Your task to perform on an android device: change notifications settings Image 0: 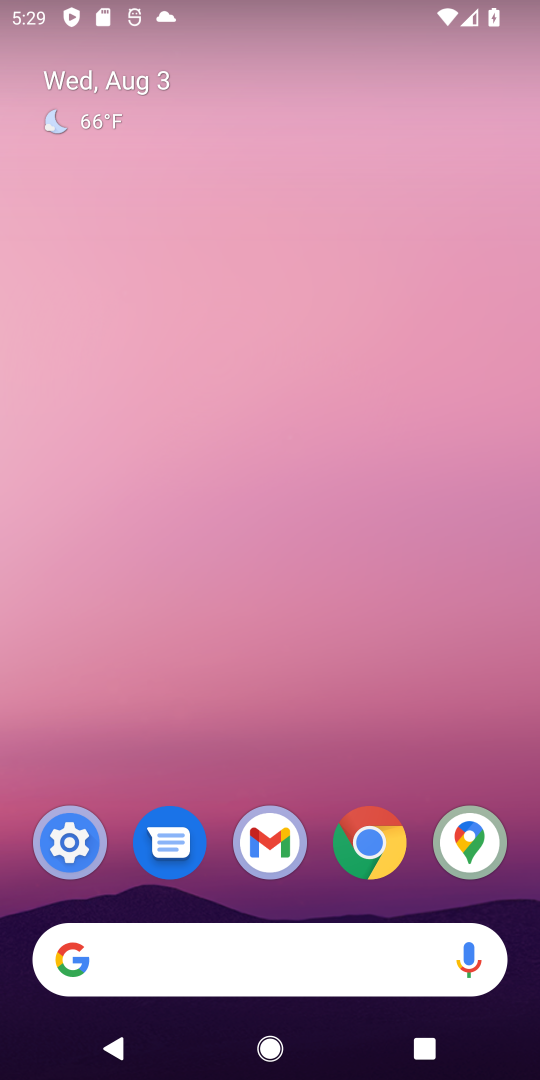
Step 0: click (76, 844)
Your task to perform on an android device: change notifications settings Image 1: 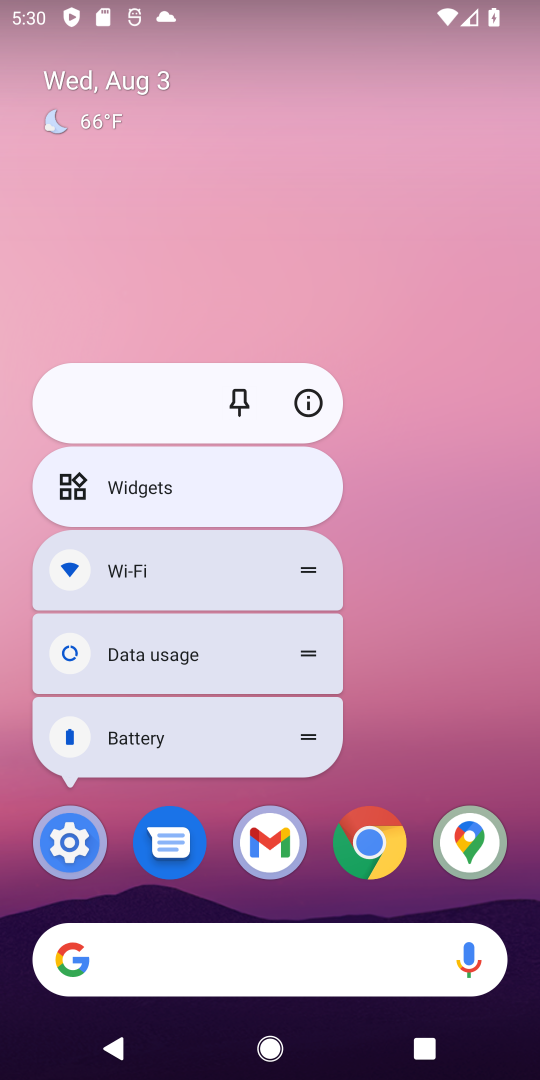
Step 1: click (50, 855)
Your task to perform on an android device: change notifications settings Image 2: 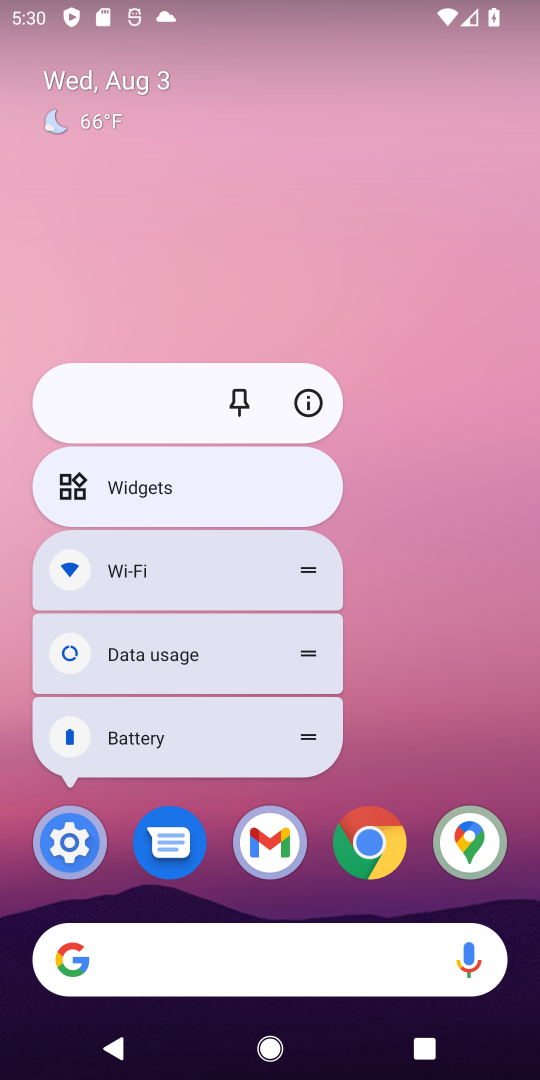
Step 2: click (50, 855)
Your task to perform on an android device: change notifications settings Image 3: 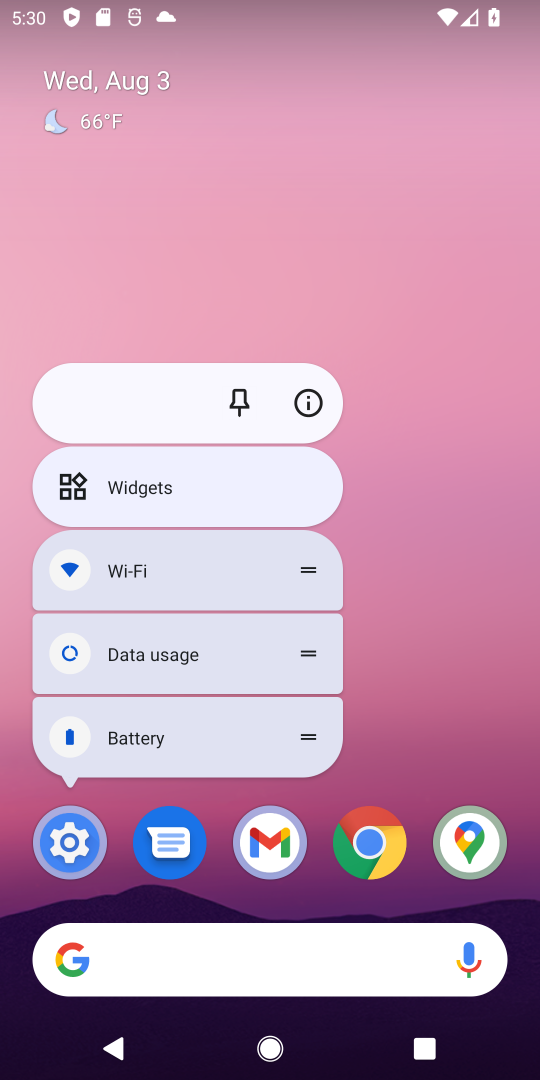
Step 3: click (74, 874)
Your task to perform on an android device: change notifications settings Image 4: 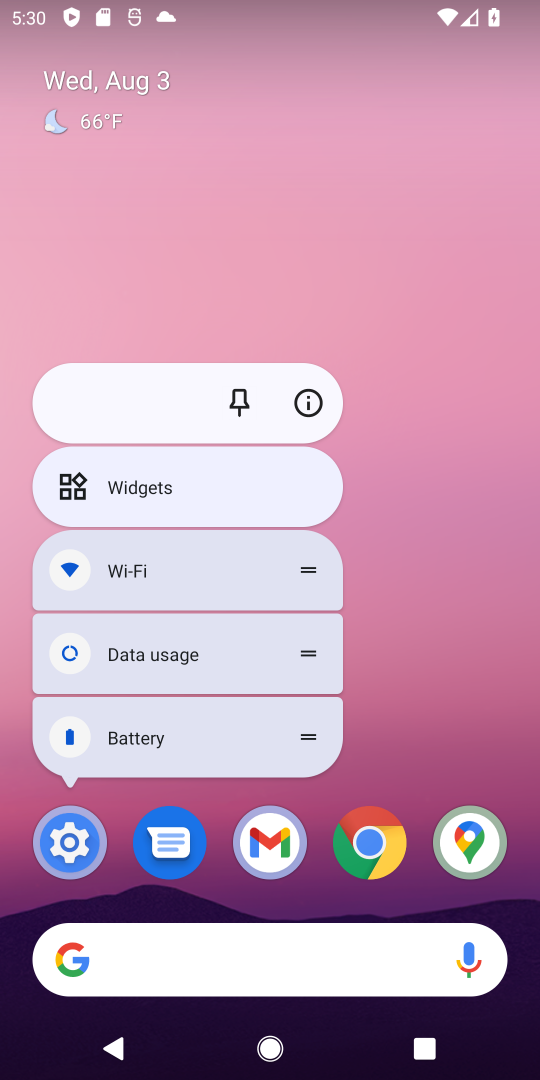
Step 4: click (71, 844)
Your task to perform on an android device: change notifications settings Image 5: 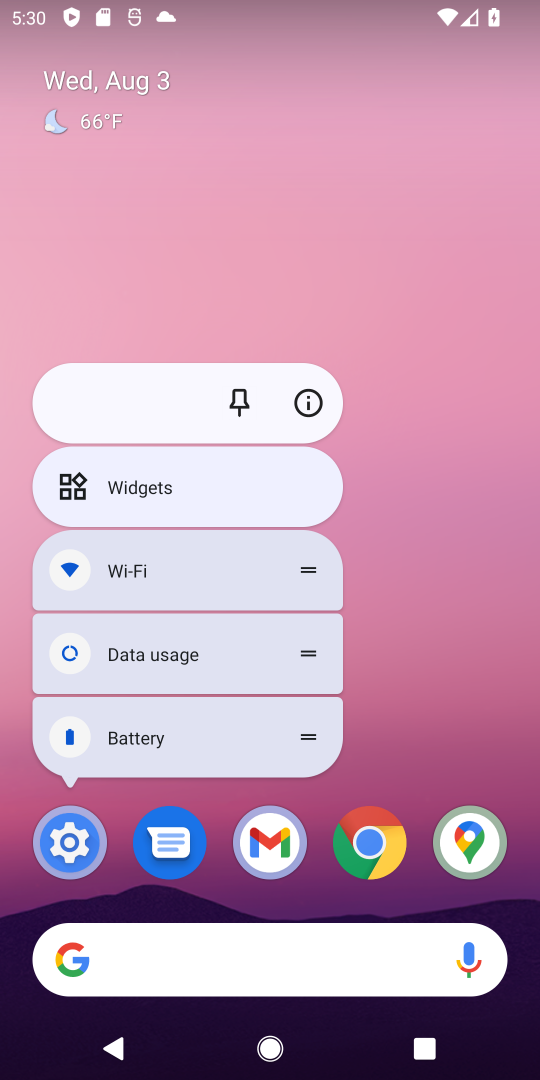
Step 5: click (71, 844)
Your task to perform on an android device: change notifications settings Image 6: 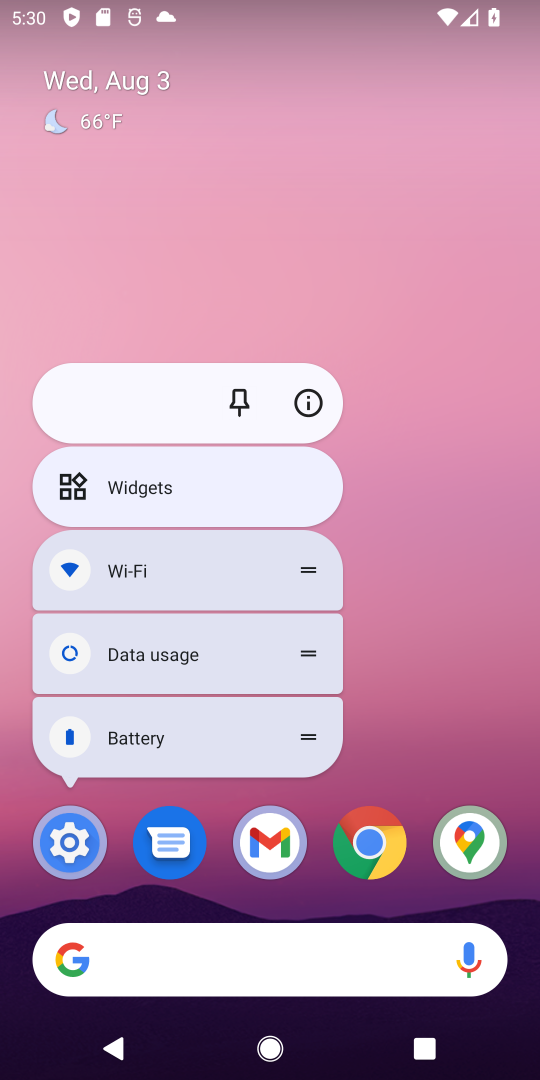
Step 6: click (53, 846)
Your task to perform on an android device: change notifications settings Image 7: 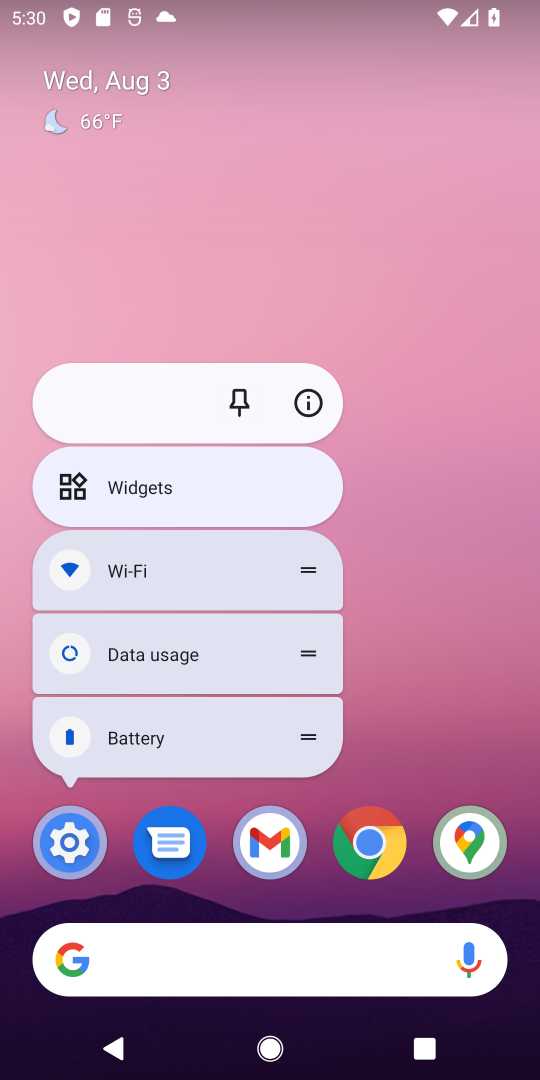
Step 7: click (53, 846)
Your task to perform on an android device: change notifications settings Image 8: 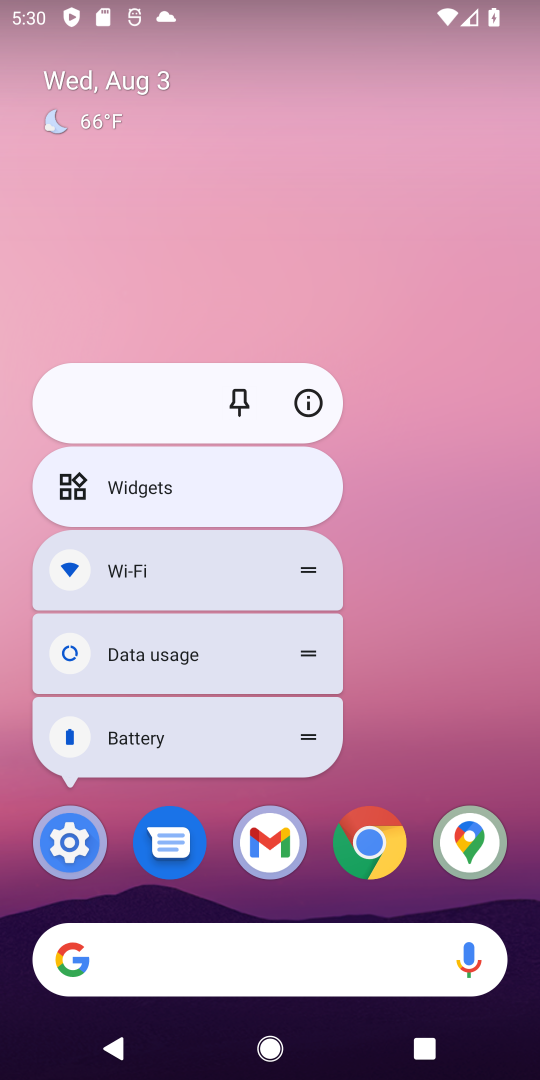
Step 8: click (53, 846)
Your task to perform on an android device: change notifications settings Image 9: 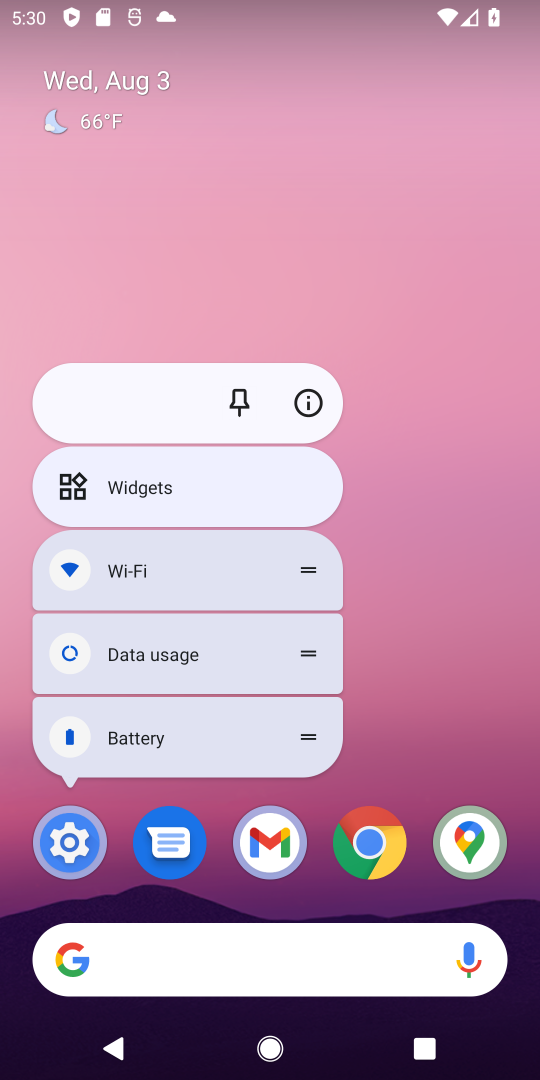
Step 9: click (73, 850)
Your task to perform on an android device: change notifications settings Image 10: 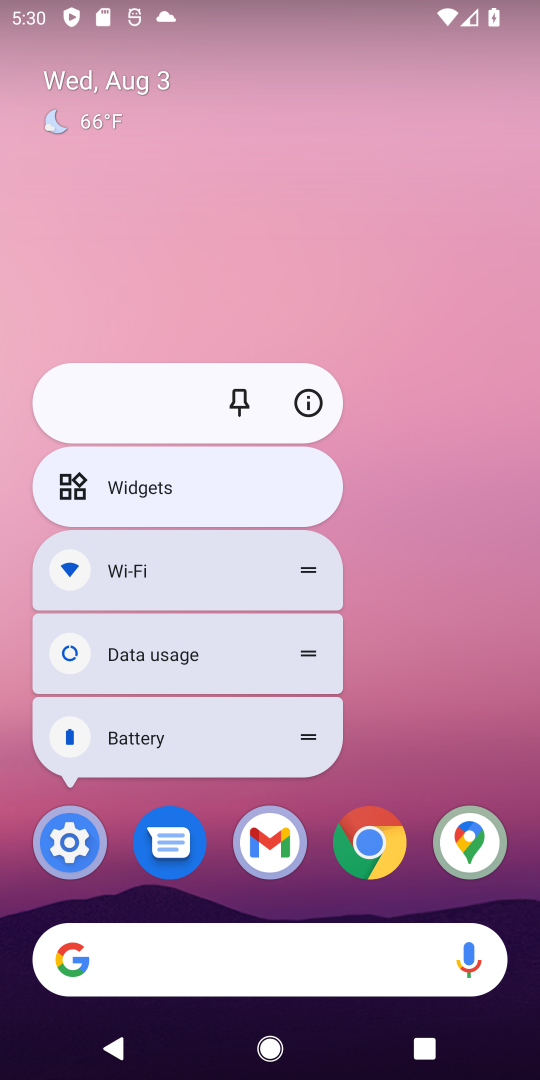
Step 10: click (73, 850)
Your task to perform on an android device: change notifications settings Image 11: 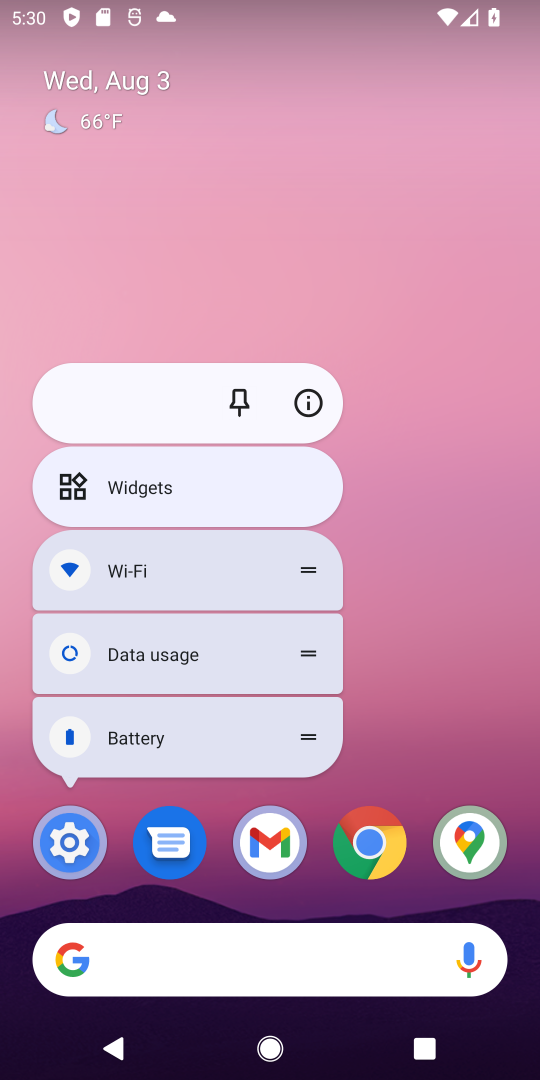
Step 11: click (73, 850)
Your task to perform on an android device: change notifications settings Image 12: 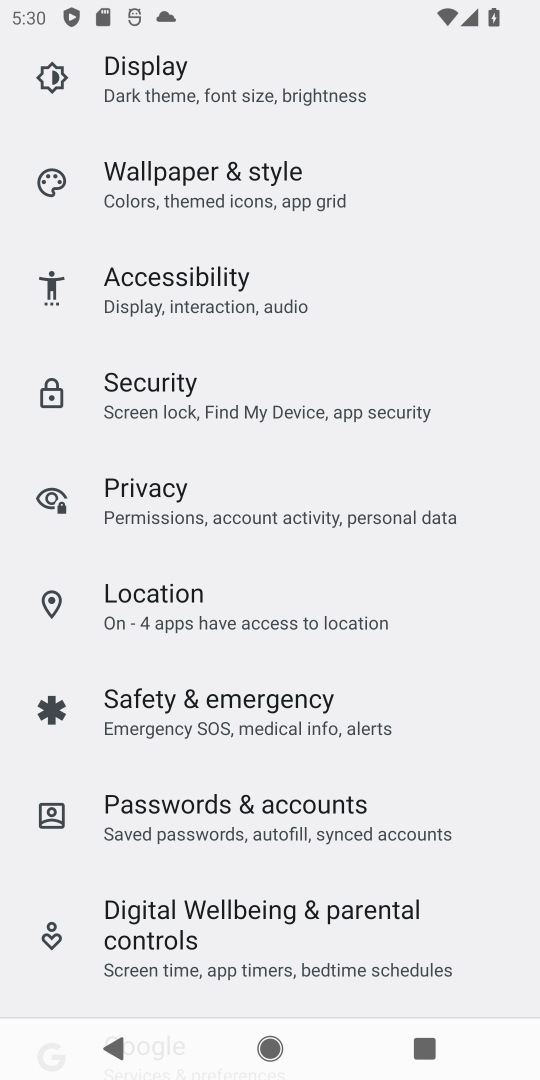
Step 12: drag from (296, 772) to (341, 107)
Your task to perform on an android device: change notifications settings Image 13: 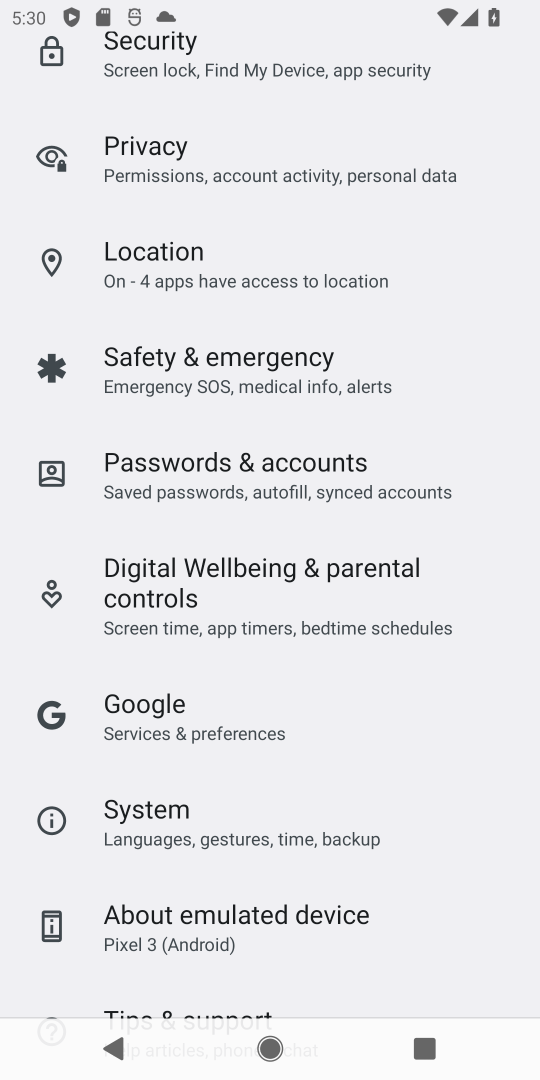
Step 13: drag from (266, 851) to (335, 38)
Your task to perform on an android device: change notifications settings Image 14: 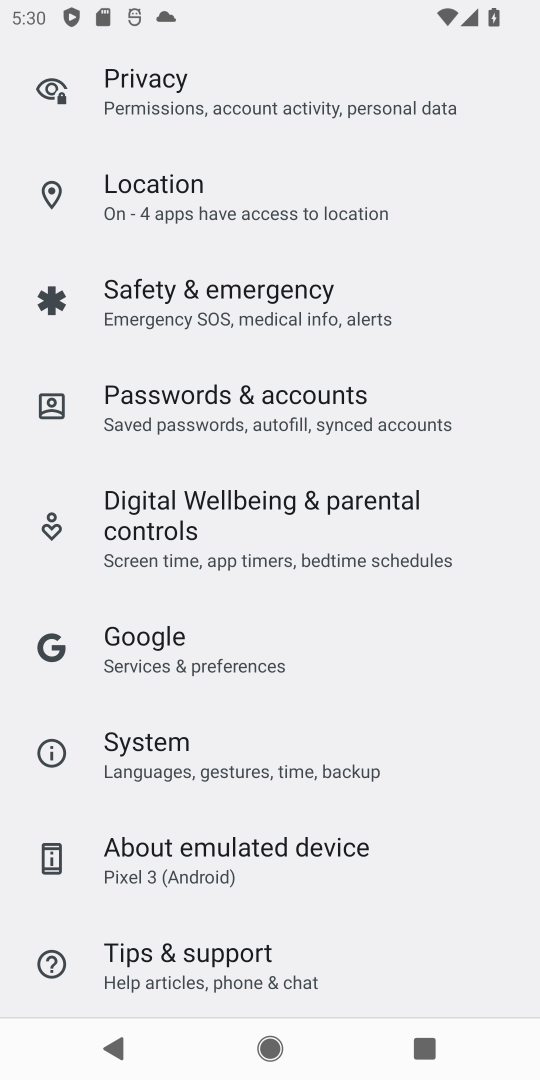
Step 14: click (294, 347)
Your task to perform on an android device: change notifications settings Image 15: 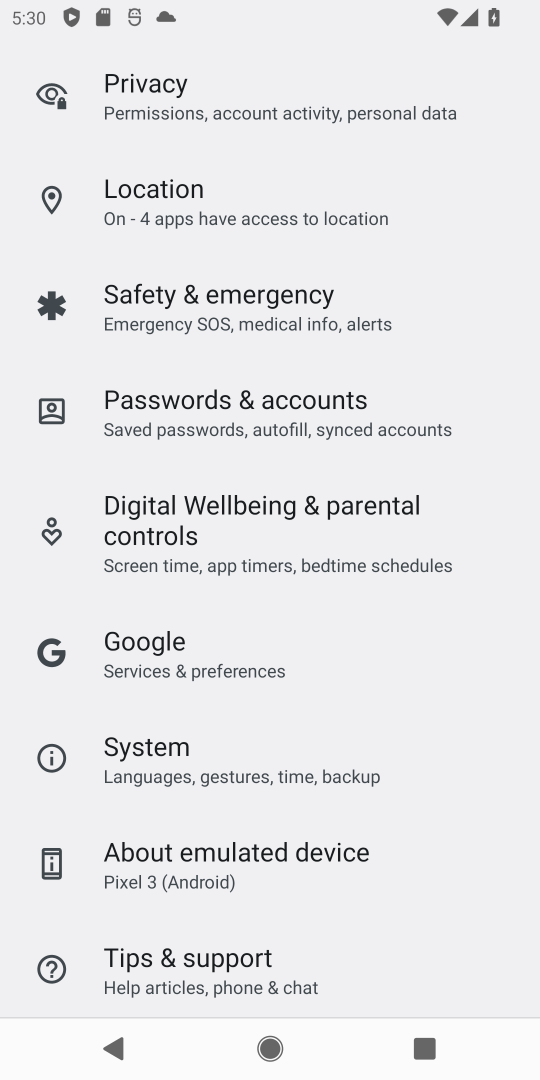
Step 15: drag from (329, 717) to (312, 1024)
Your task to perform on an android device: change notifications settings Image 16: 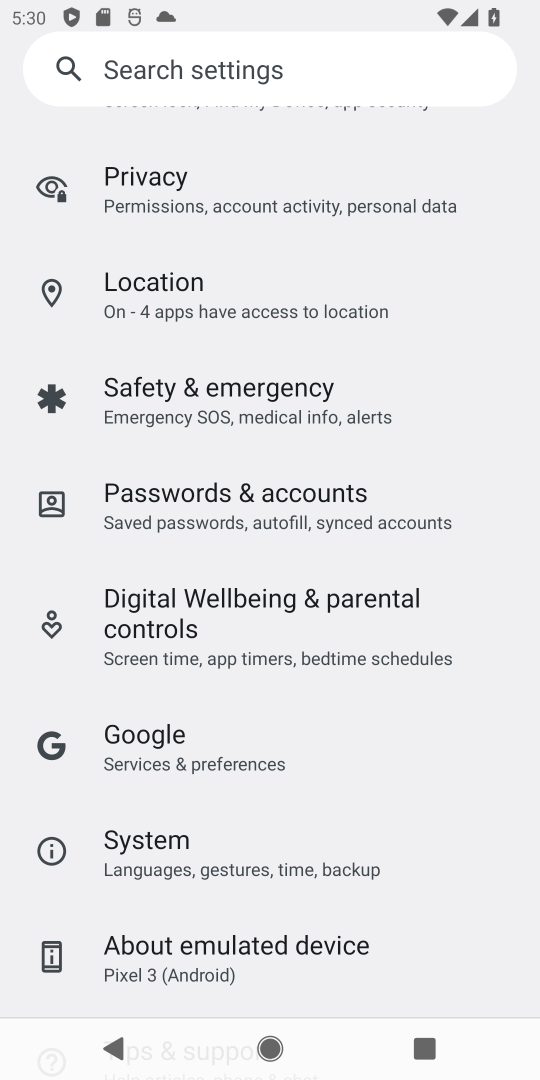
Step 16: drag from (326, 266) to (307, 1005)
Your task to perform on an android device: change notifications settings Image 17: 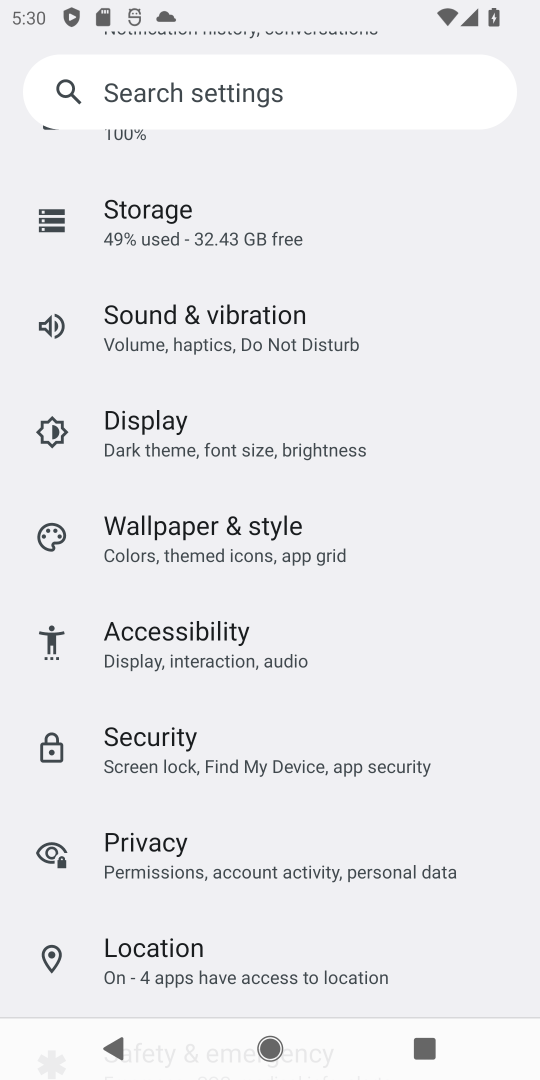
Step 17: drag from (338, 236) to (321, 1075)
Your task to perform on an android device: change notifications settings Image 18: 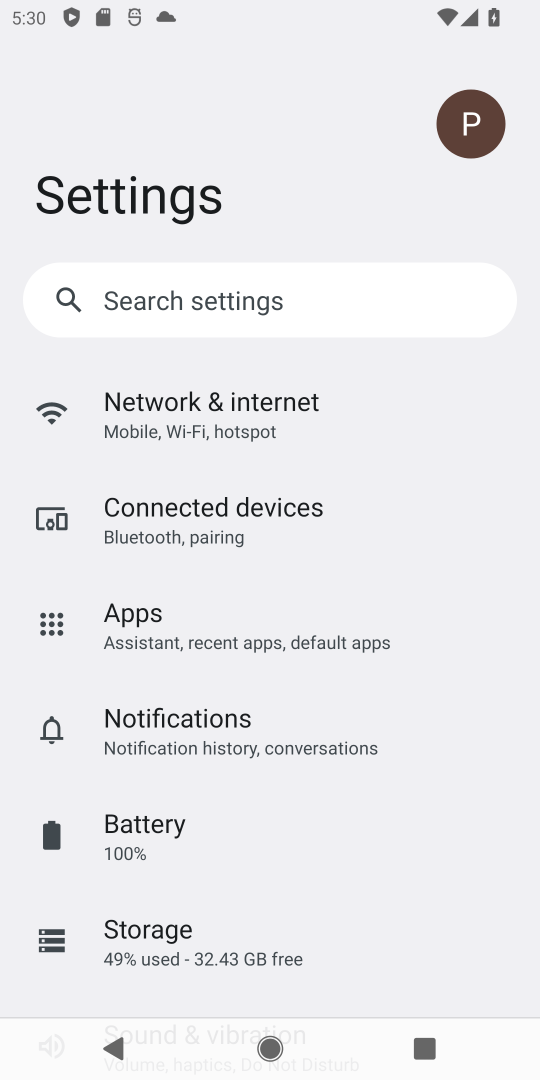
Step 18: click (260, 741)
Your task to perform on an android device: change notifications settings Image 19: 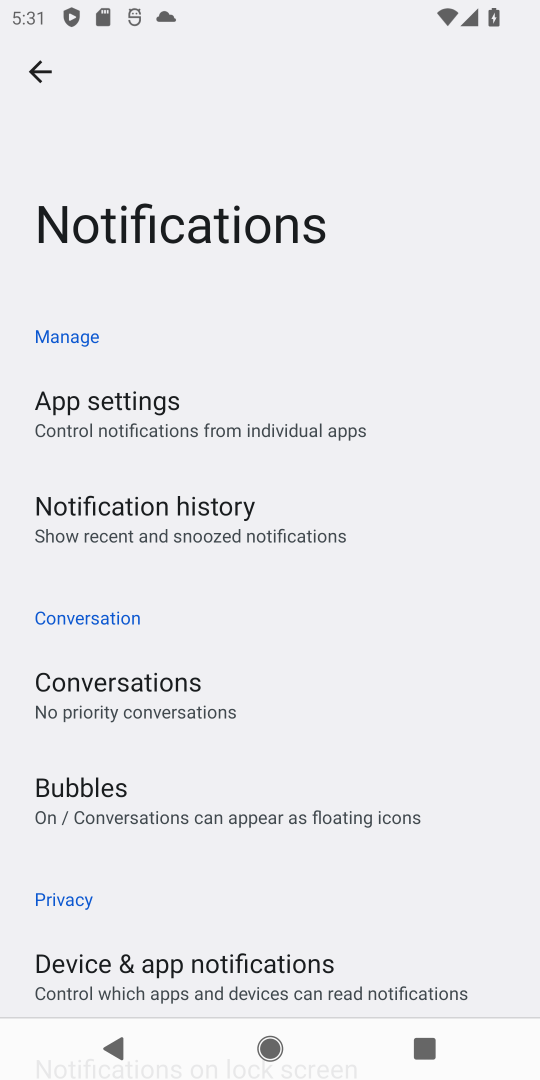
Step 19: click (350, 418)
Your task to perform on an android device: change notifications settings Image 20: 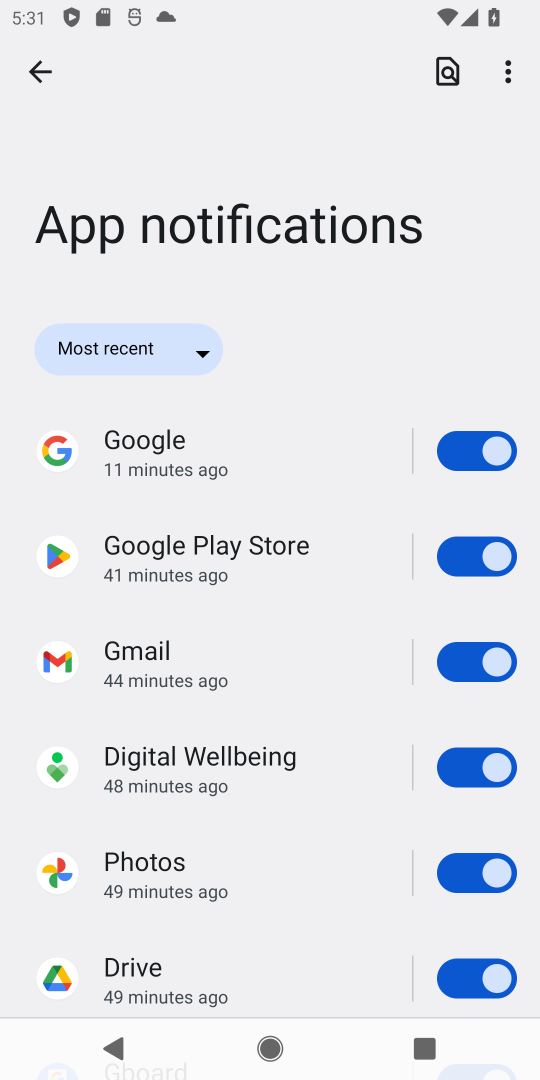
Step 20: click (480, 453)
Your task to perform on an android device: change notifications settings Image 21: 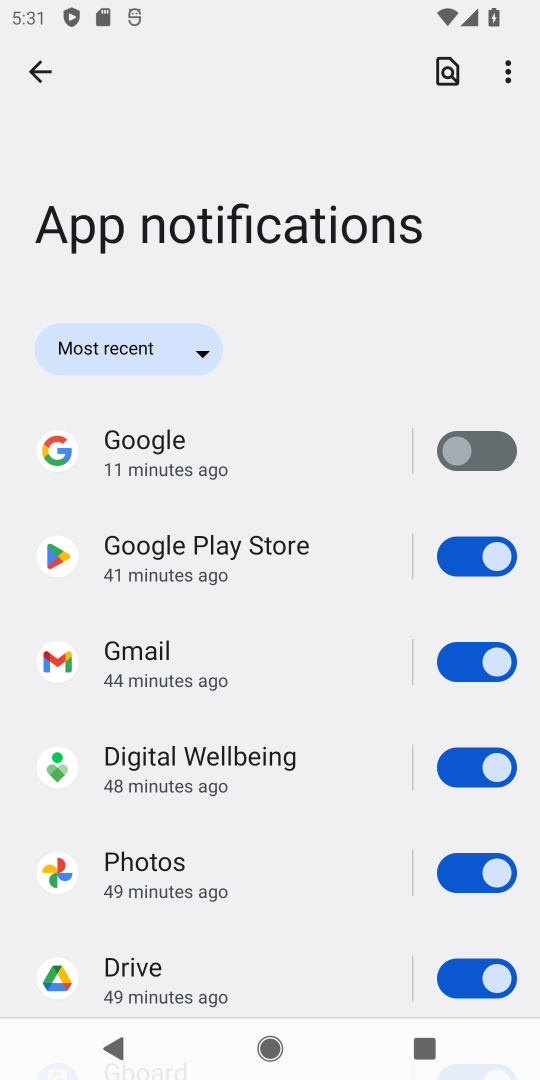
Step 21: task complete